Your task to perform on an android device: Go to Maps Image 0: 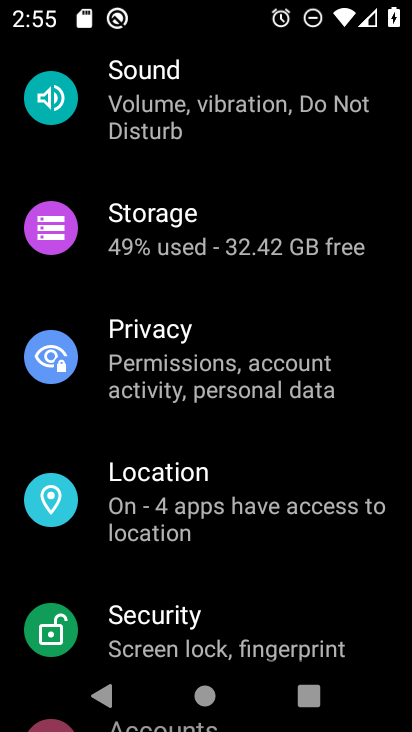
Step 0: press home button
Your task to perform on an android device: Go to Maps Image 1: 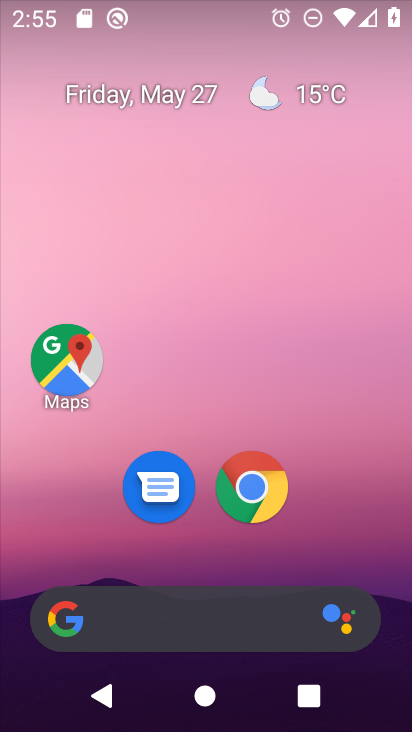
Step 1: click (59, 367)
Your task to perform on an android device: Go to Maps Image 2: 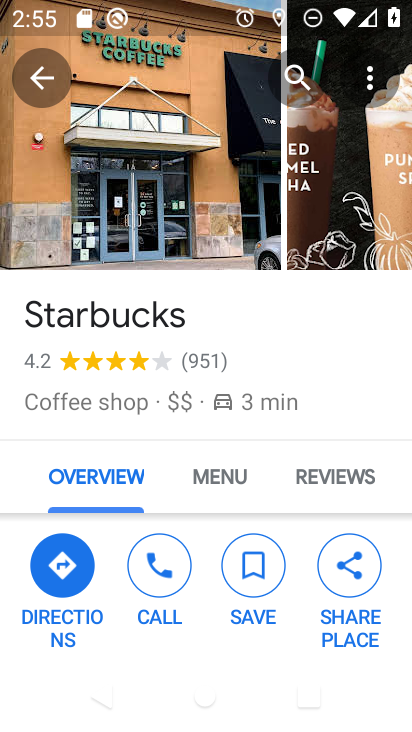
Step 2: click (59, 367)
Your task to perform on an android device: Go to Maps Image 3: 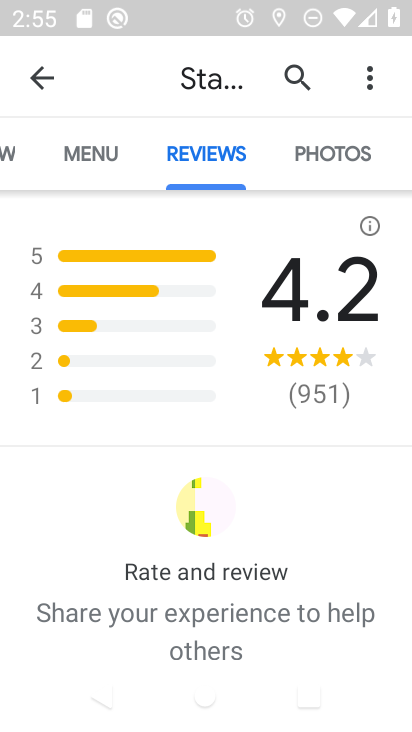
Step 3: task complete